Your task to perform on an android device: change timer sound Image 0: 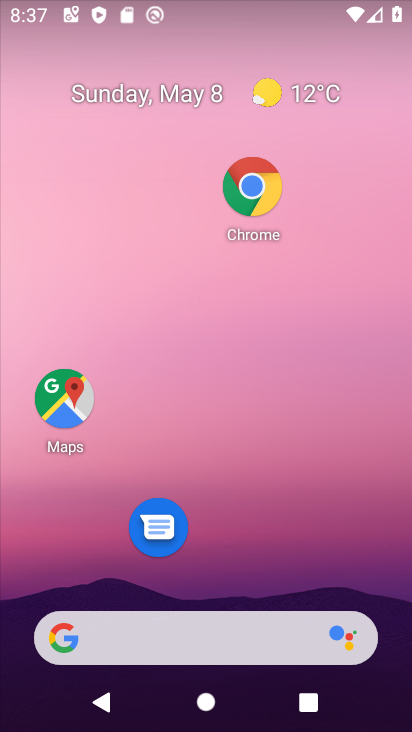
Step 0: drag from (300, 523) to (295, 245)
Your task to perform on an android device: change timer sound Image 1: 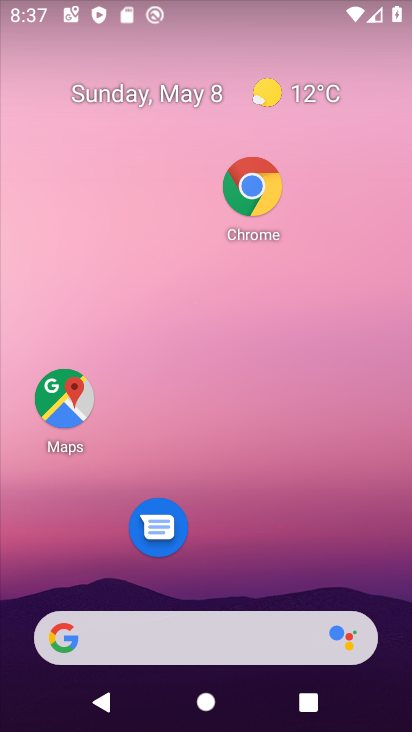
Step 1: drag from (267, 582) to (359, 44)
Your task to perform on an android device: change timer sound Image 2: 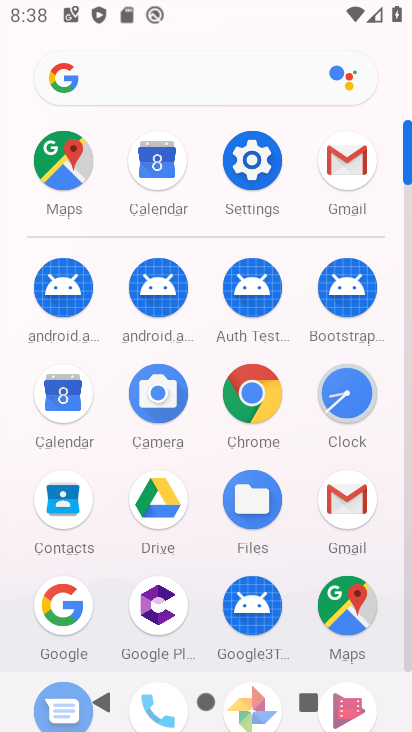
Step 2: click (324, 386)
Your task to perform on an android device: change timer sound Image 3: 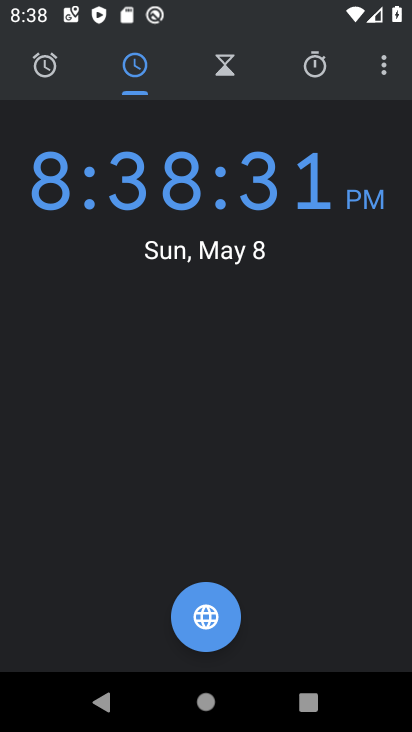
Step 3: click (373, 64)
Your task to perform on an android device: change timer sound Image 4: 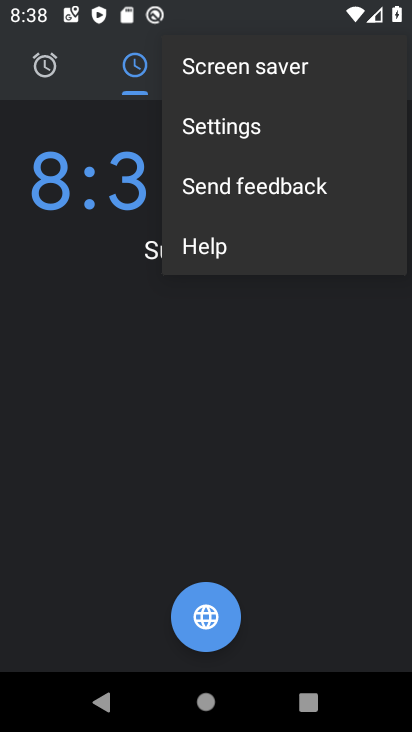
Step 4: click (243, 126)
Your task to perform on an android device: change timer sound Image 5: 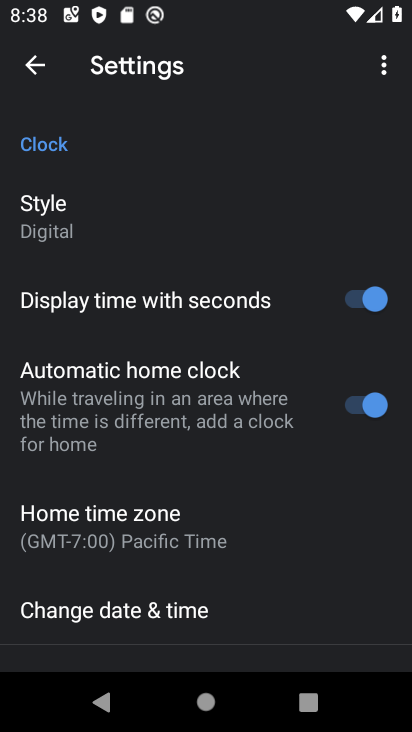
Step 5: drag from (244, 603) to (279, 157)
Your task to perform on an android device: change timer sound Image 6: 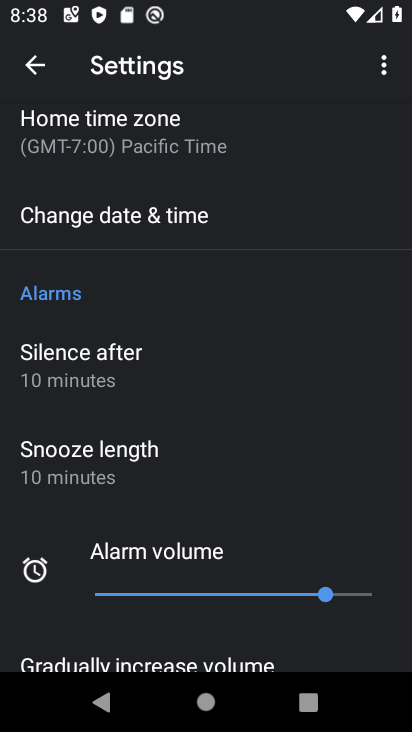
Step 6: drag from (190, 502) to (320, 94)
Your task to perform on an android device: change timer sound Image 7: 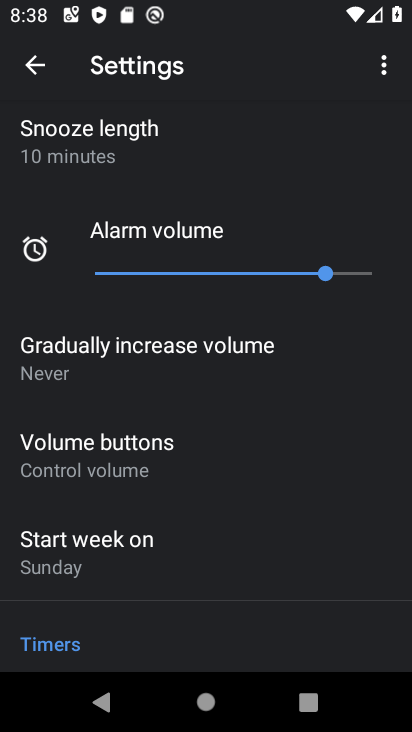
Step 7: drag from (187, 561) to (338, 171)
Your task to perform on an android device: change timer sound Image 8: 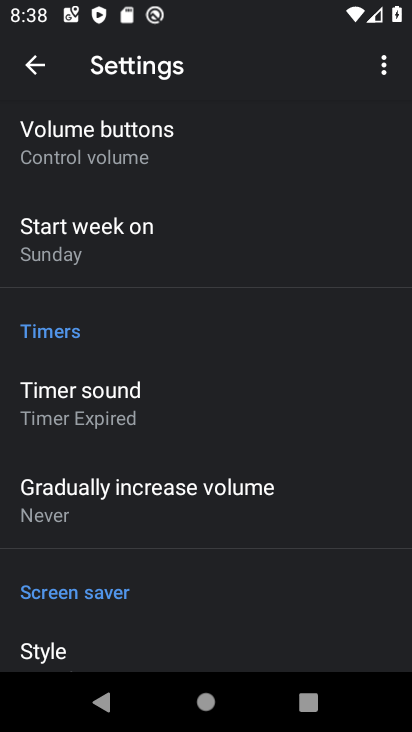
Step 8: click (102, 393)
Your task to perform on an android device: change timer sound Image 9: 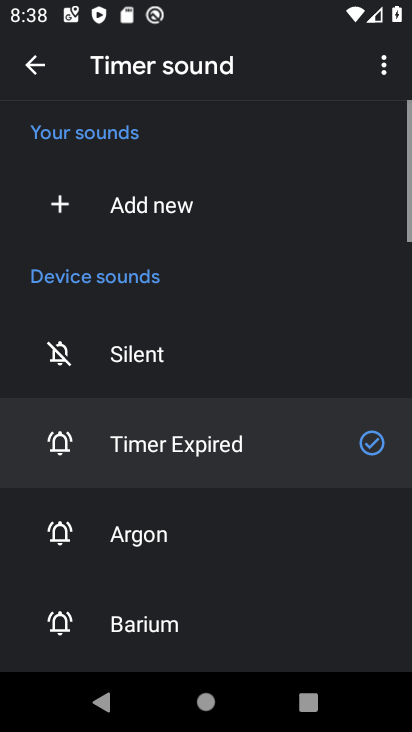
Step 9: drag from (181, 517) to (235, 162)
Your task to perform on an android device: change timer sound Image 10: 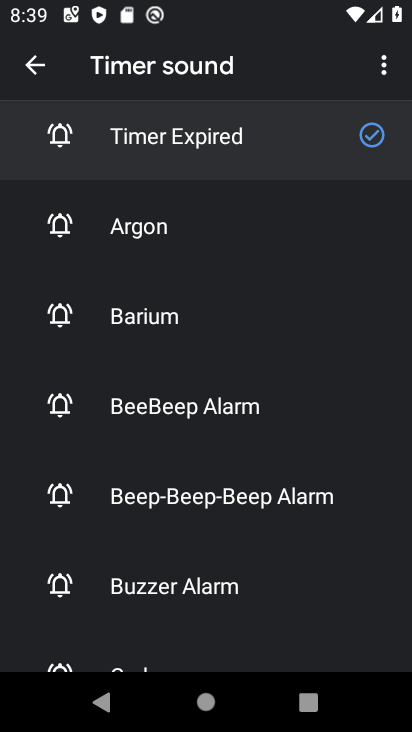
Step 10: click (147, 580)
Your task to perform on an android device: change timer sound Image 11: 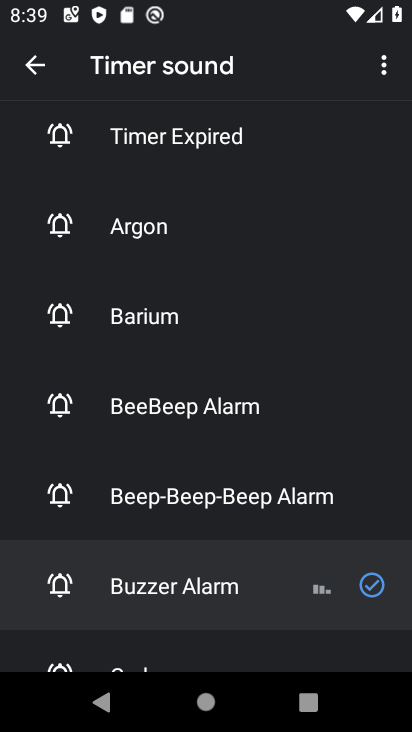
Step 11: task complete